Your task to perform on an android device: View the shopping cart on costco. Search for "razer blade" on costco, select the first entry, add it to the cart, then select checkout. Image 0: 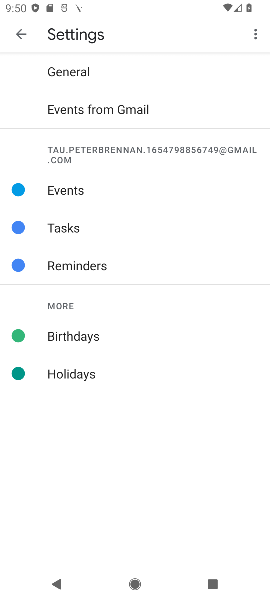
Step 0: task complete